Your task to perform on an android device: Open calendar and show me the fourth week of next month Image 0: 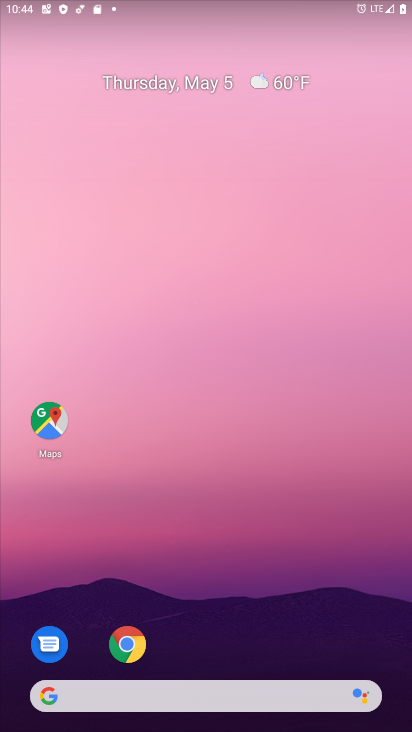
Step 0: drag from (326, 595) to (322, 242)
Your task to perform on an android device: Open calendar and show me the fourth week of next month Image 1: 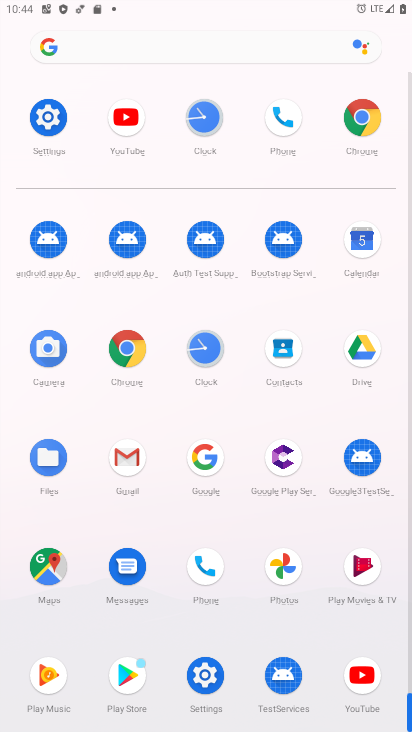
Step 1: click (366, 243)
Your task to perform on an android device: Open calendar and show me the fourth week of next month Image 2: 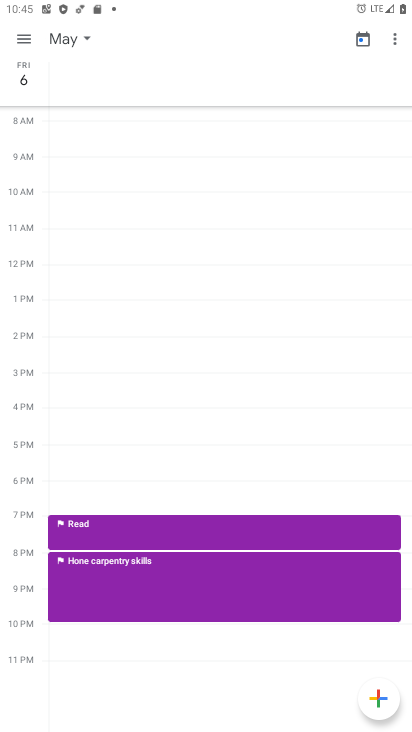
Step 2: click (86, 35)
Your task to perform on an android device: Open calendar and show me the fourth week of next month Image 3: 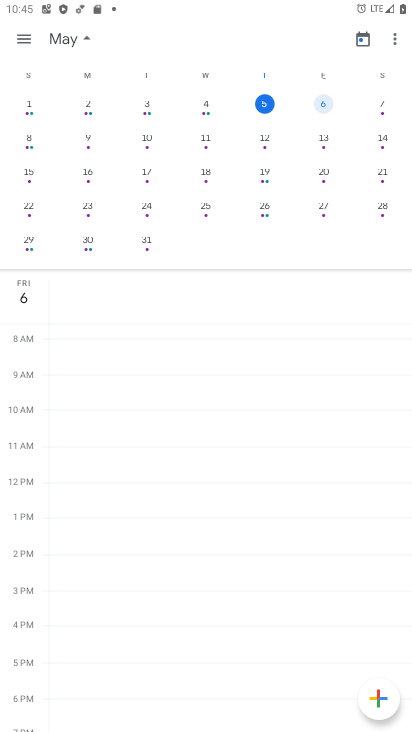
Step 3: drag from (302, 191) to (0, 199)
Your task to perform on an android device: Open calendar and show me the fourth week of next month Image 4: 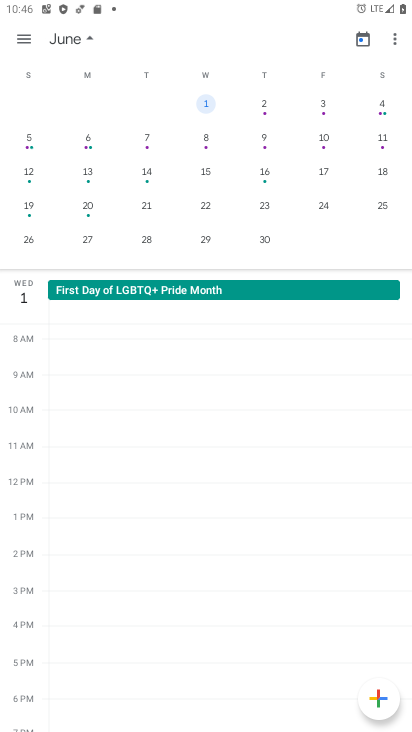
Step 4: click (25, 212)
Your task to perform on an android device: Open calendar and show me the fourth week of next month Image 5: 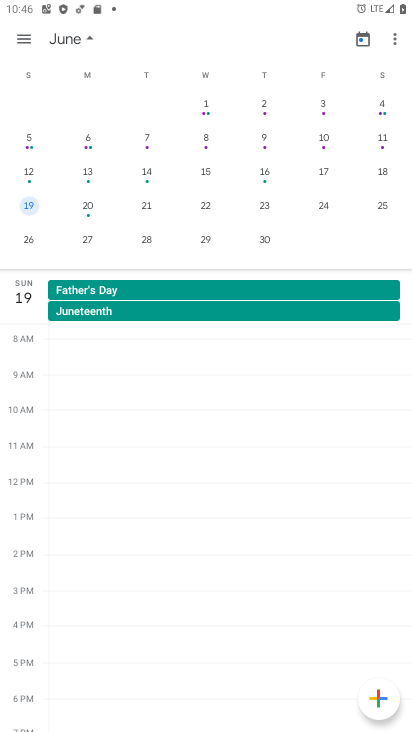
Step 5: click (86, 207)
Your task to perform on an android device: Open calendar and show me the fourth week of next month Image 6: 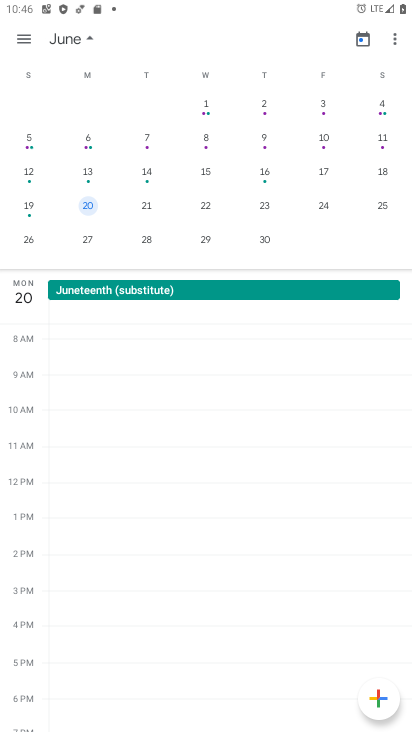
Step 6: click (153, 213)
Your task to perform on an android device: Open calendar and show me the fourth week of next month Image 7: 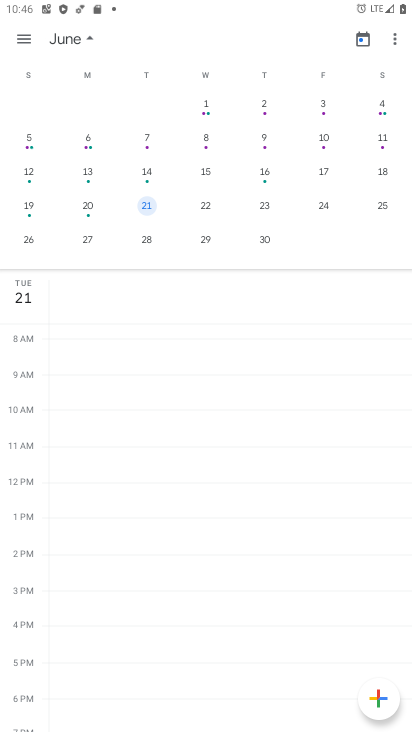
Step 7: click (201, 213)
Your task to perform on an android device: Open calendar and show me the fourth week of next month Image 8: 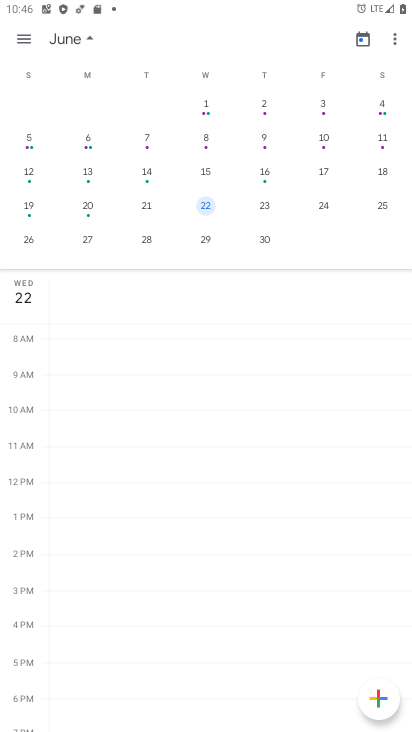
Step 8: click (264, 212)
Your task to perform on an android device: Open calendar and show me the fourth week of next month Image 9: 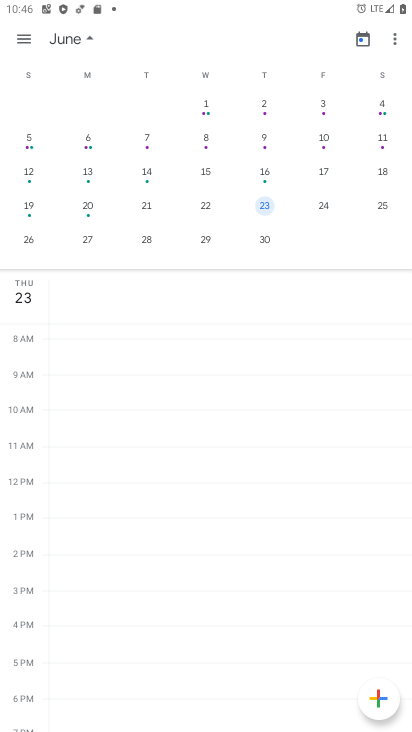
Step 9: click (326, 213)
Your task to perform on an android device: Open calendar and show me the fourth week of next month Image 10: 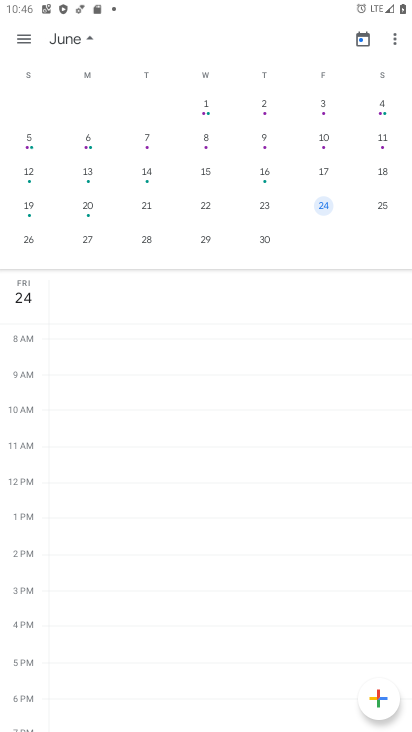
Step 10: click (389, 210)
Your task to perform on an android device: Open calendar and show me the fourth week of next month Image 11: 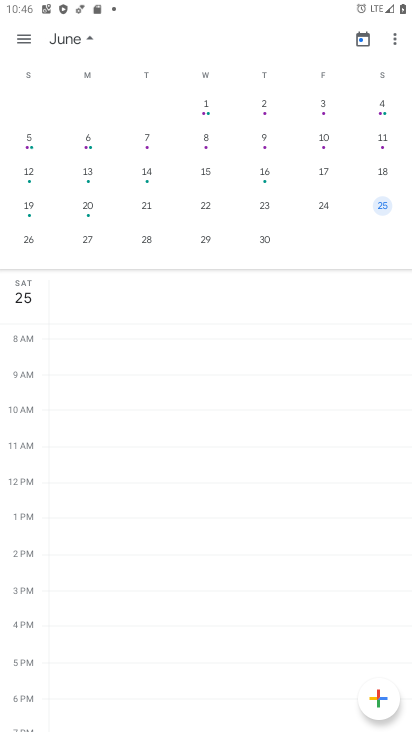
Step 11: task complete